Your task to perform on an android device: open chrome privacy settings Image 0: 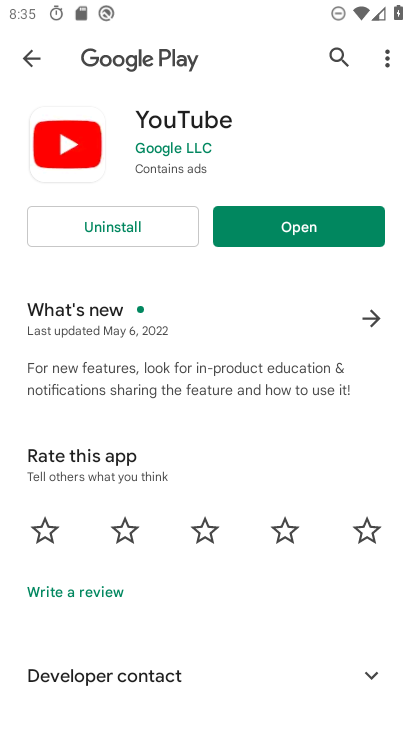
Step 0: press home button
Your task to perform on an android device: open chrome privacy settings Image 1: 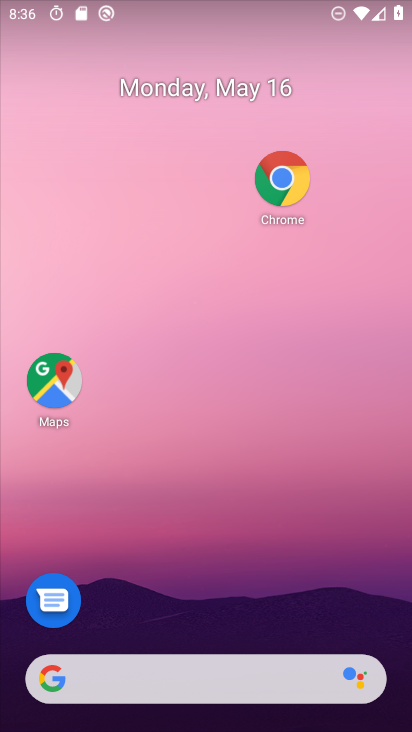
Step 1: click (286, 187)
Your task to perform on an android device: open chrome privacy settings Image 2: 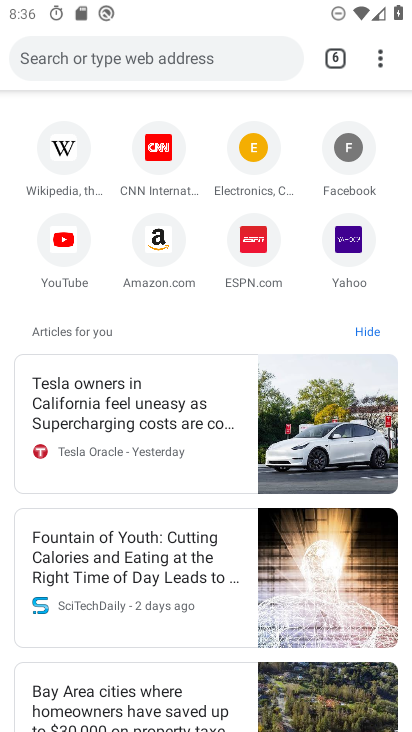
Step 2: drag from (379, 67) to (194, 500)
Your task to perform on an android device: open chrome privacy settings Image 3: 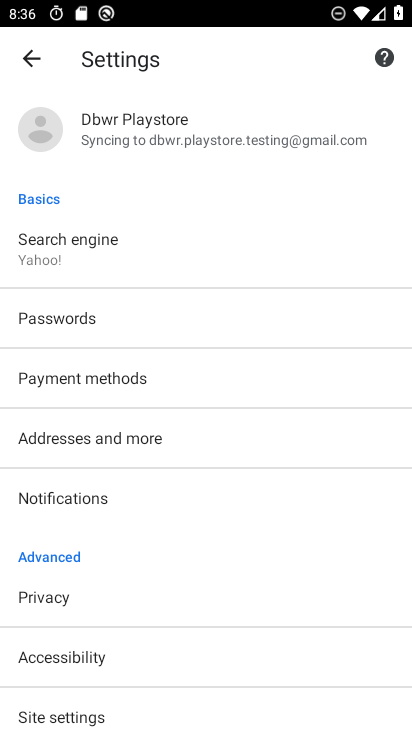
Step 3: click (35, 604)
Your task to perform on an android device: open chrome privacy settings Image 4: 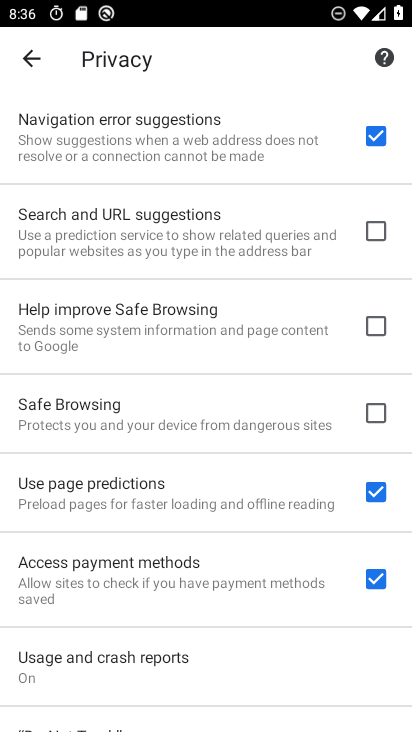
Step 4: task complete